Your task to perform on an android device: open app "Fetch Rewards" (install if not already installed), go to login, and select forgot password Image 0: 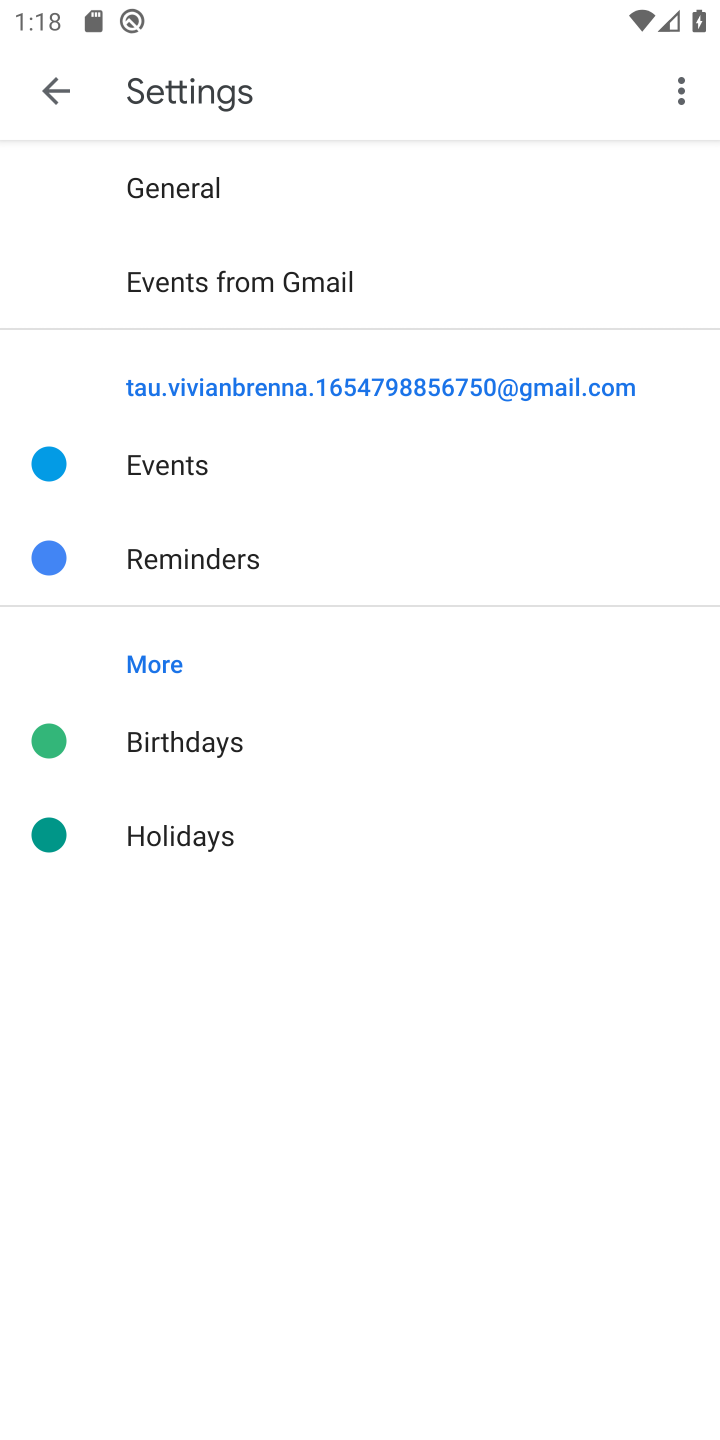
Step 0: press home button
Your task to perform on an android device: open app "Fetch Rewards" (install if not already installed), go to login, and select forgot password Image 1: 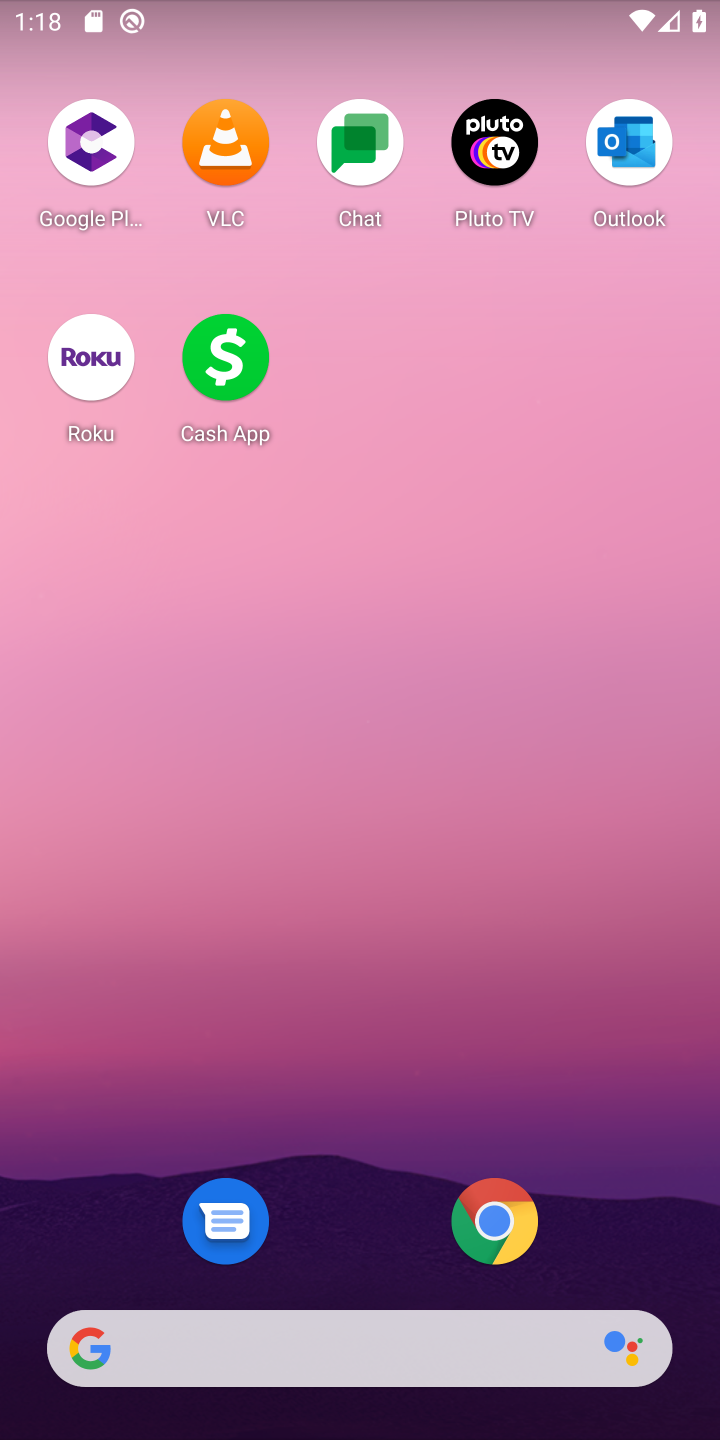
Step 1: drag from (376, 1260) to (368, 13)
Your task to perform on an android device: open app "Fetch Rewards" (install if not already installed), go to login, and select forgot password Image 2: 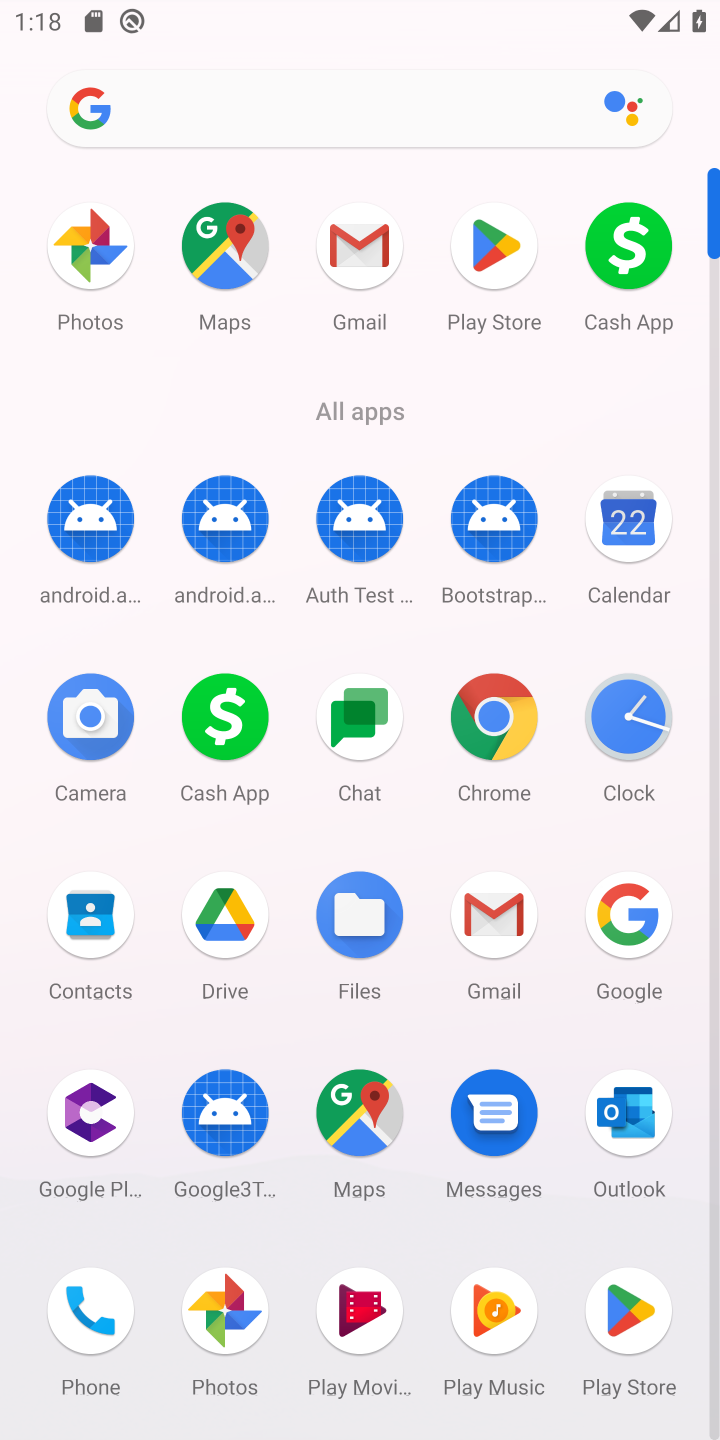
Step 2: click (487, 240)
Your task to perform on an android device: open app "Fetch Rewards" (install if not already installed), go to login, and select forgot password Image 3: 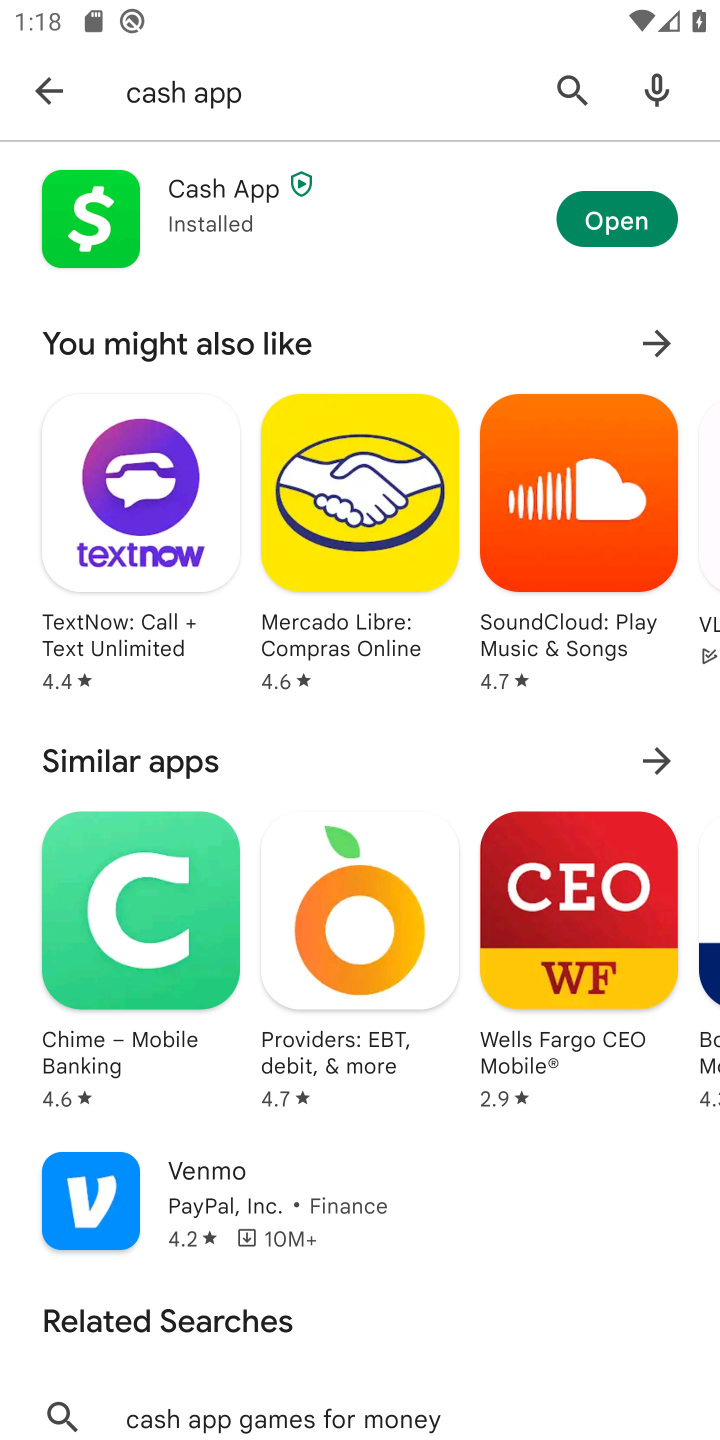
Step 3: click (574, 91)
Your task to perform on an android device: open app "Fetch Rewards" (install if not already installed), go to login, and select forgot password Image 4: 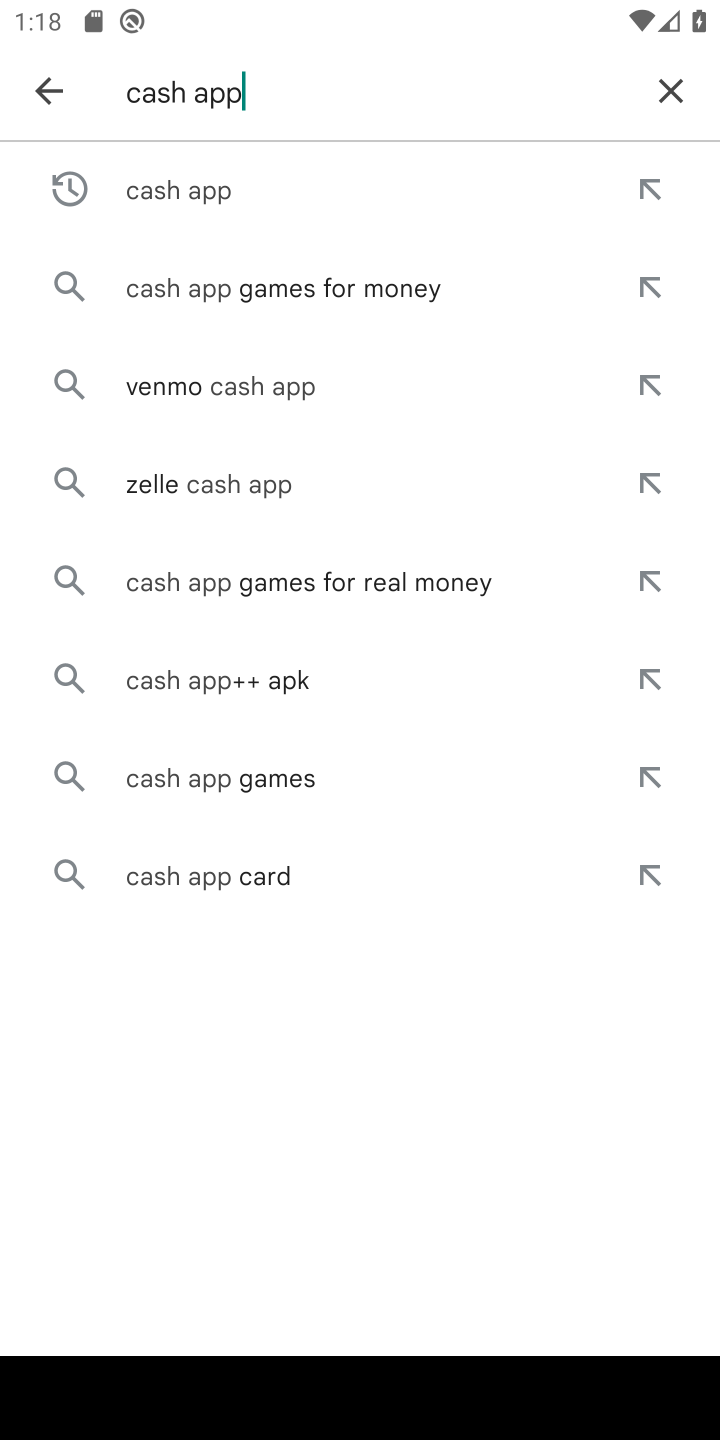
Step 4: click (668, 86)
Your task to perform on an android device: open app "Fetch Rewards" (install if not already installed), go to login, and select forgot password Image 5: 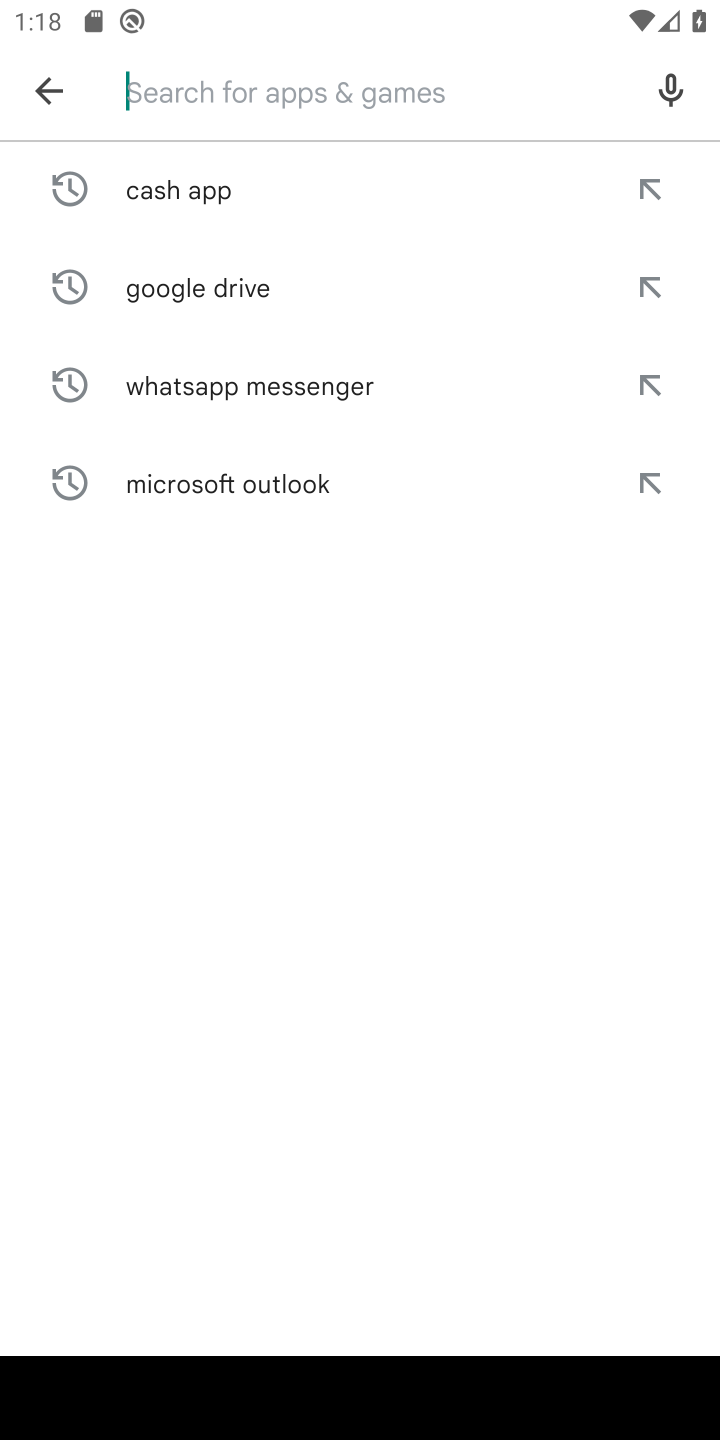
Step 5: type "Fetch Rewards"
Your task to perform on an android device: open app "Fetch Rewards" (install if not already installed), go to login, and select forgot password Image 6: 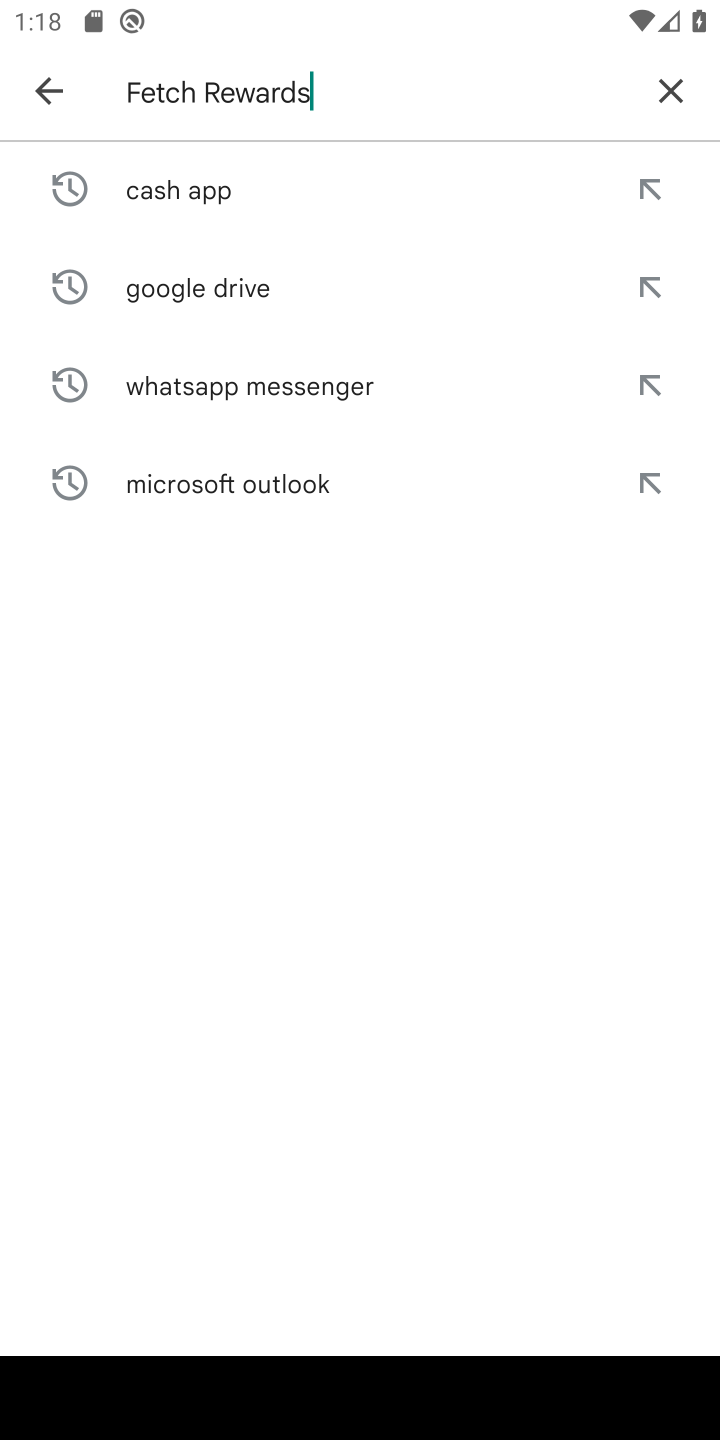
Step 6: type ""
Your task to perform on an android device: open app "Fetch Rewards" (install if not already installed), go to login, and select forgot password Image 7: 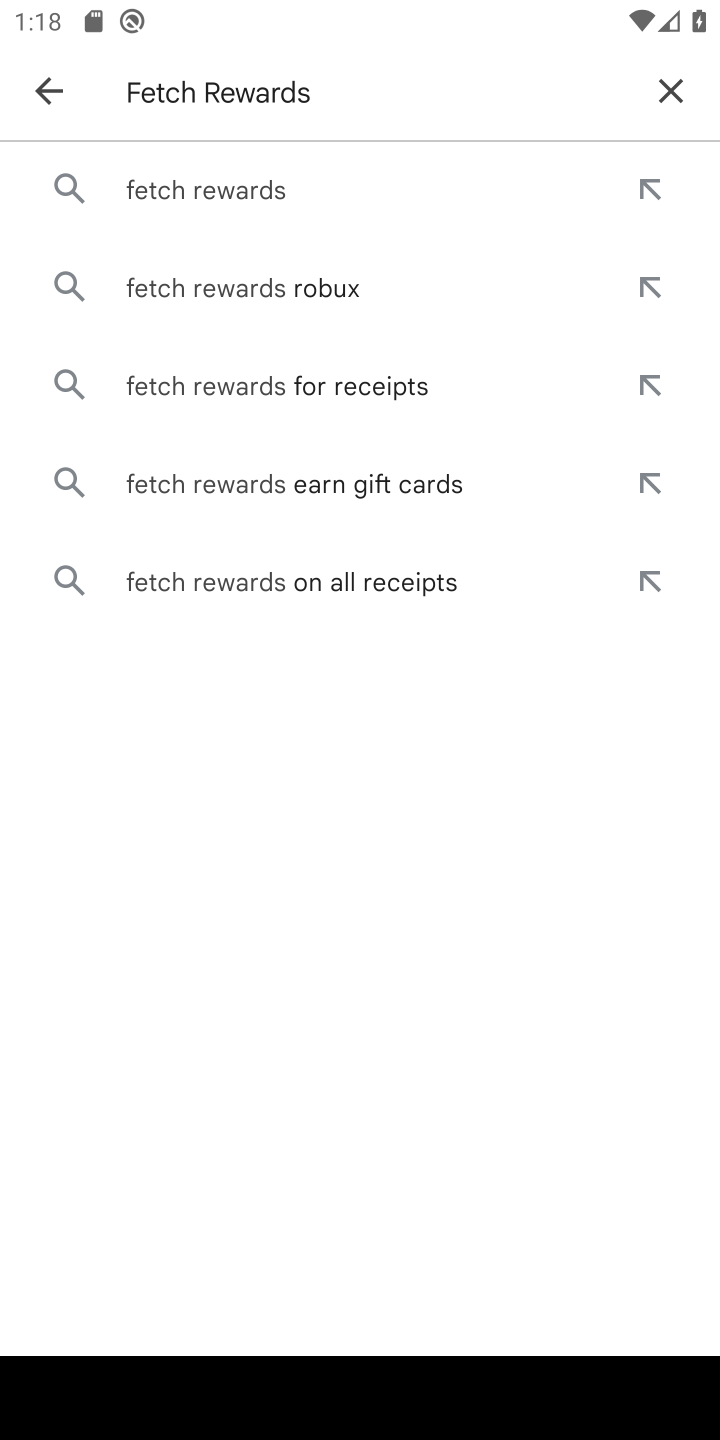
Step 7: click (307, 183)
Your task to perform on an android device: open app "Fetch Rewards" (install if not already installed), go to login, and select forgot password Image 8: 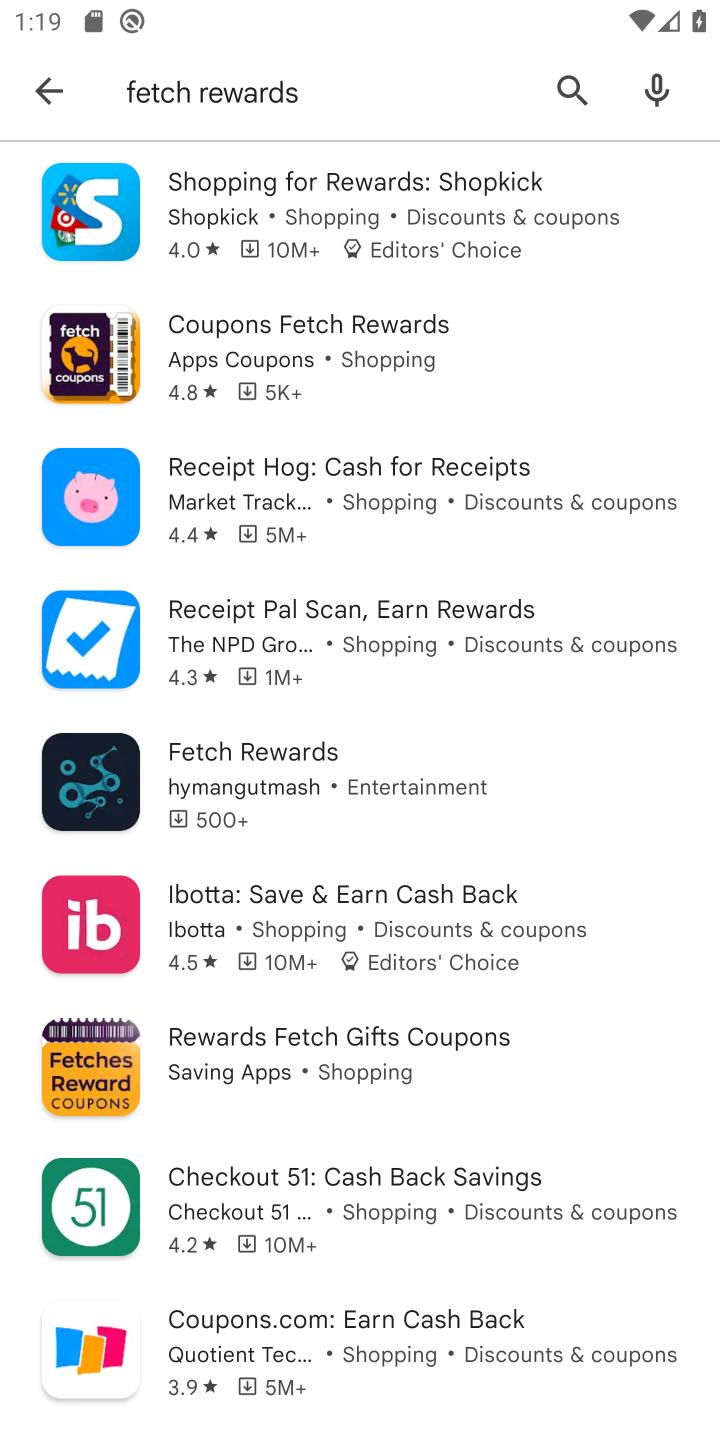
Step 8: task complete